Your task to perform on an android device: turn off javascript in the chrome app Image 0: 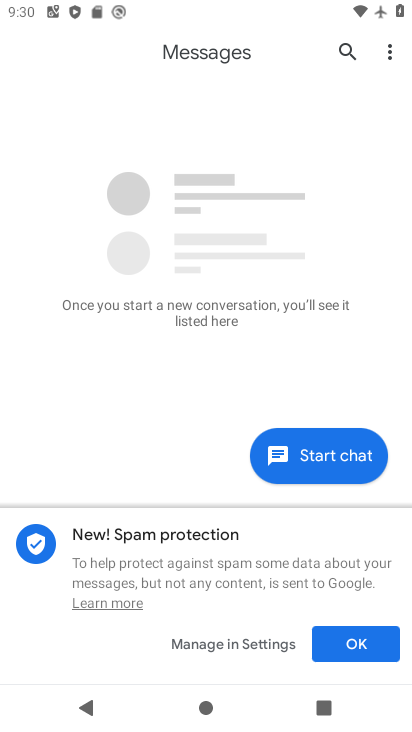
Step 0: press home button
Your task to perform on an android device: turn off javascript in the chrome app Image 1: 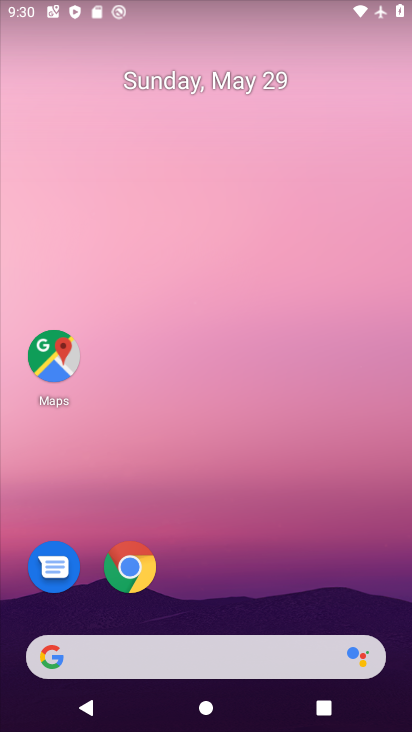
Step 1: click (132, 569)
Your task to perform on an android device: turn off javascript in the chrome app Image 2: 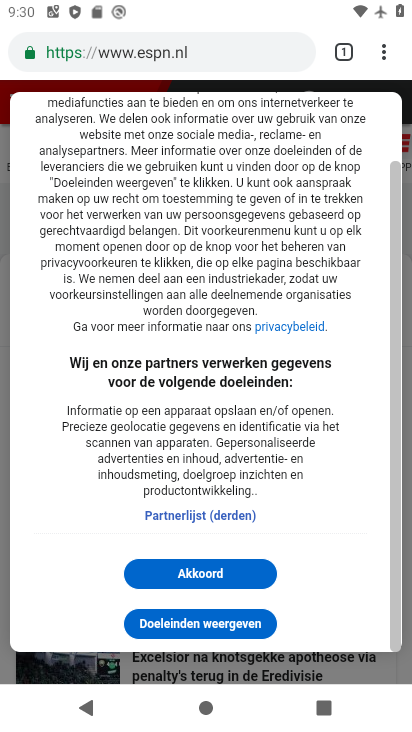
Step 2: click (385, 55)
Your task to perform on an android device: turn off javascript in the chrome app Image 3: 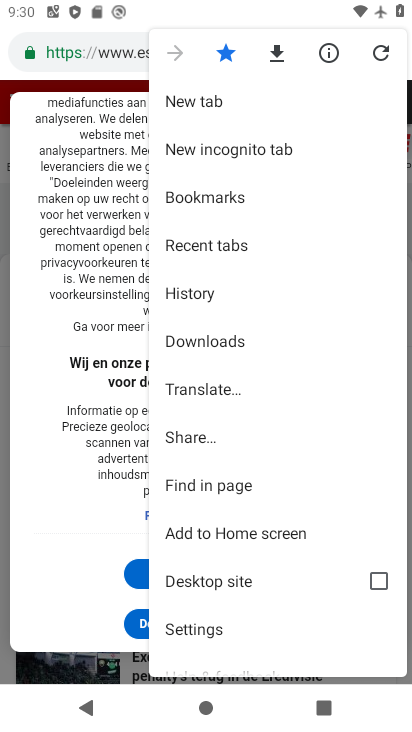
Step 3: click (200, 622)
Your task to perform on an android device: turn off javascript in the chrome app Image 4: 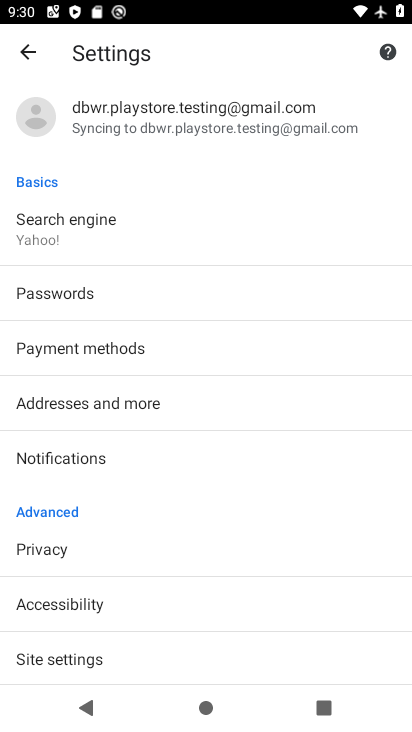
Step 4: drag from (160, 618) to (184, 333)
Your task to perform on an android device: turn off javascript in the chrome app Image 5: 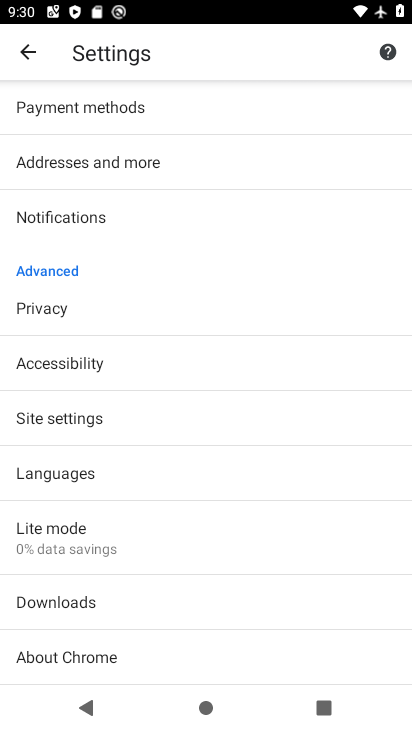
Step 5: drag from (184, 335) to (173, 466)
Your task to perform on an android device: turn off javascript in the chrome app Image 6: 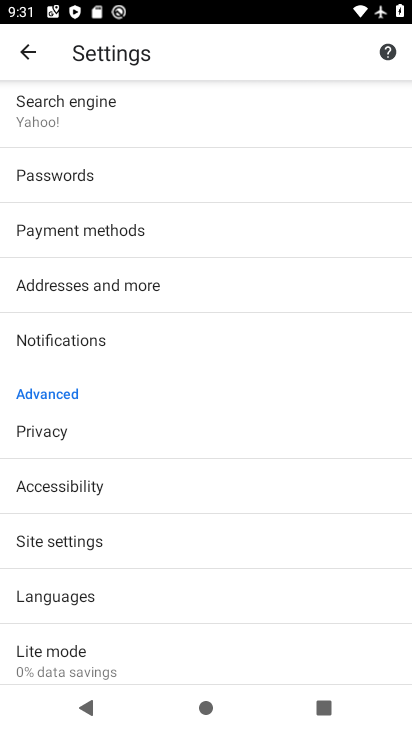
Step 6: click (50, 533)
Your task to perform on an android device: turn off javascript in the chrome app Image 7: 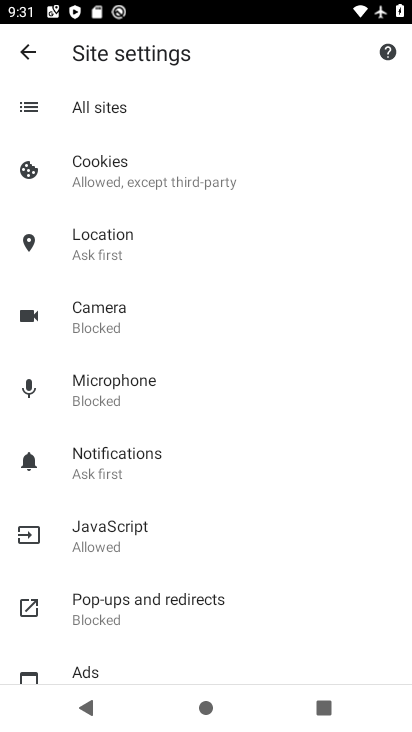
Step 7: click (102, 539)
Your task to perform on an android device: turn off javascript in the chrome app Image 8: 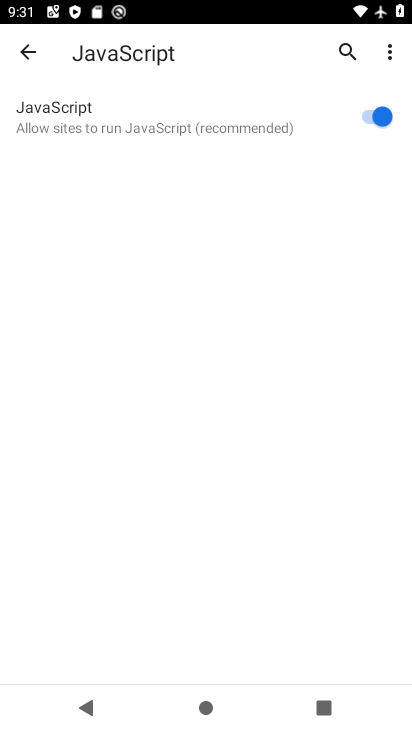
Step 8: click (365, 111)
Your task to perform on an android device: turn off javascript in the chrome app Image 9: 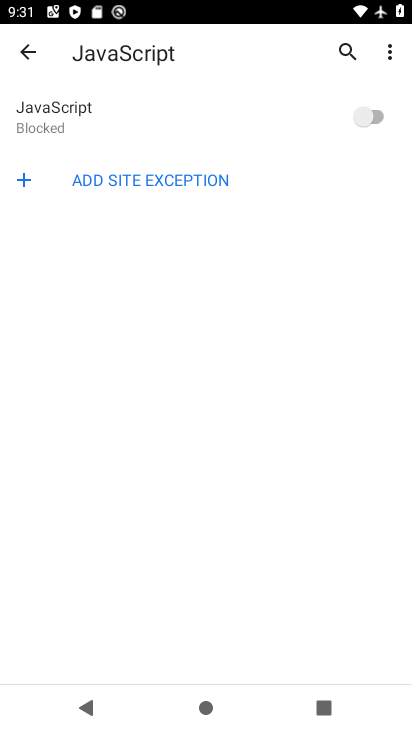
Step 9: task complete